Your task to perform on an android device: toggle javascript in the chrome app Image 0: 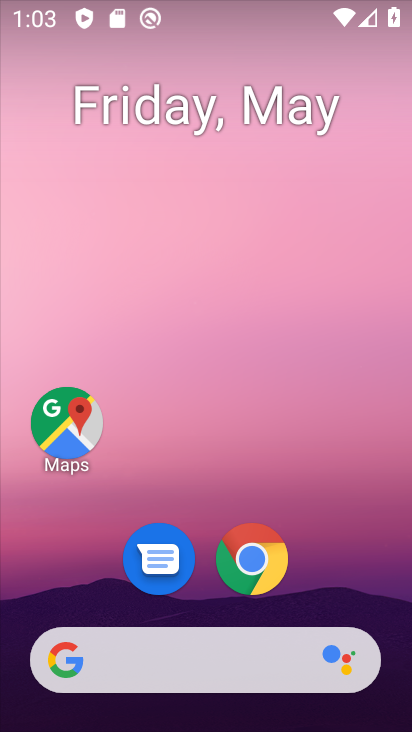
Step 0: drag from (348, 593) to (340, 194)
Your task to perform on an android device: toggle javascript in the chrome app Image 1: 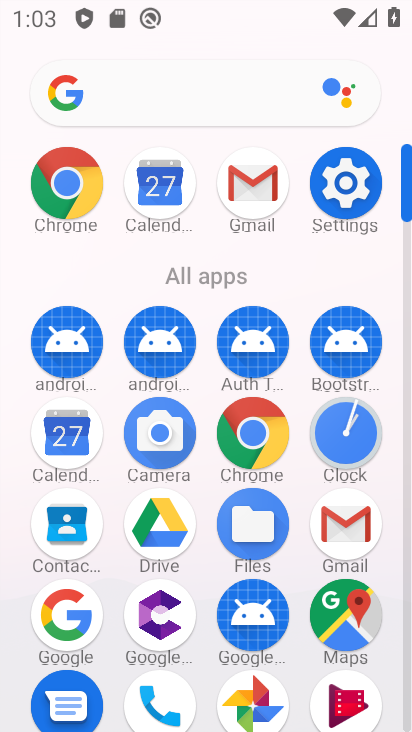
Step 1: click (243, 434)
Your task to perform on an android device: toggle javascript in the chrome app Image 2: 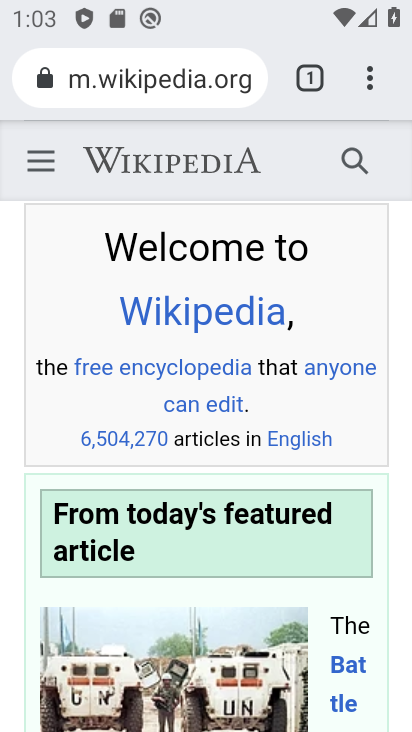
Step 2: drag from (370, 83) to (121, 615)
Your task to perform on an android device: toggle javascript in the chrome app Image 3: 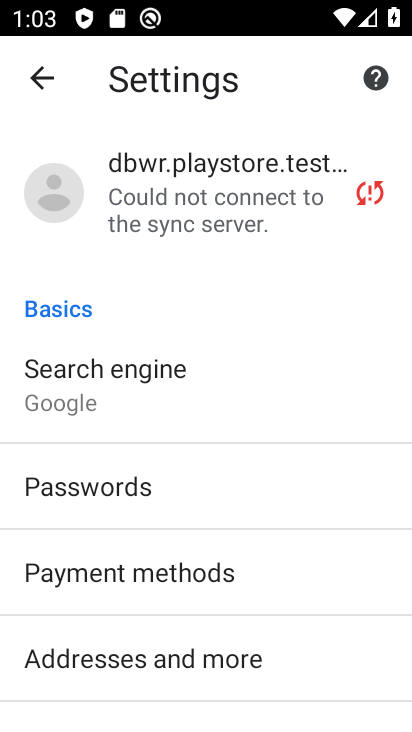
Step 3: drag from (303, 706) to (290, 340)
Your task to perform on an android device: toggle javascript in the chrome app Image 4: 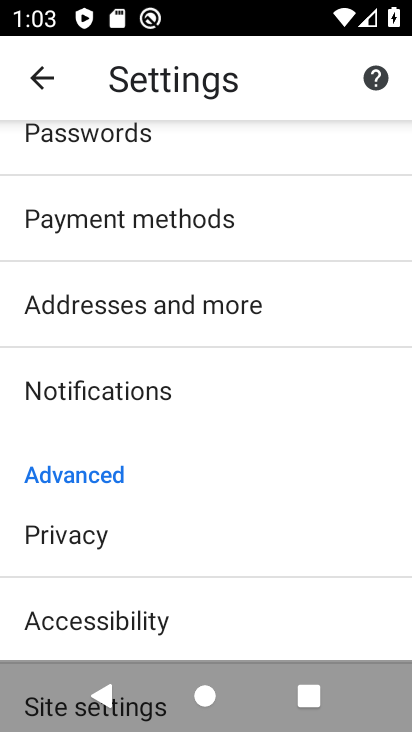
Step 4: drag from (257, 557) to (268, 273)
Your task to perform on an android device: toggle javascript in the chrome app Image 5: 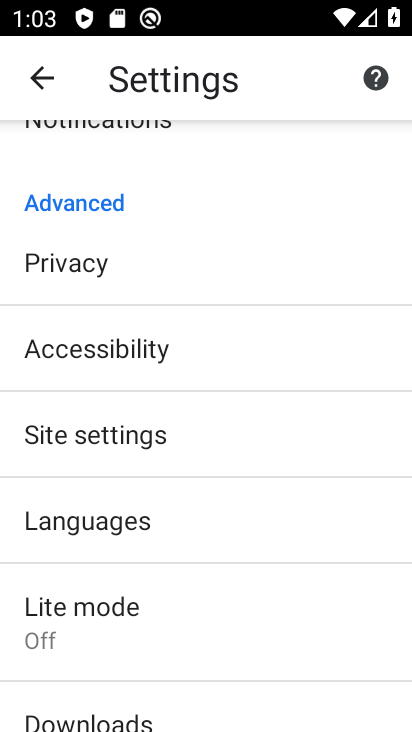
Step 5: drag from (227, 619) to (260, 310)
Your task to perform on an android device: toggle javascript in the chrome app Image 6: 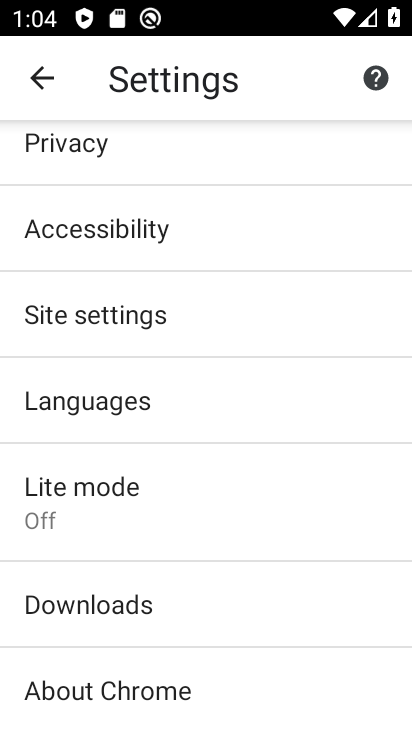
Step 6: click (174, 330)
Your task to perform on an android device: toggle javascript in the chrome app Image 7: 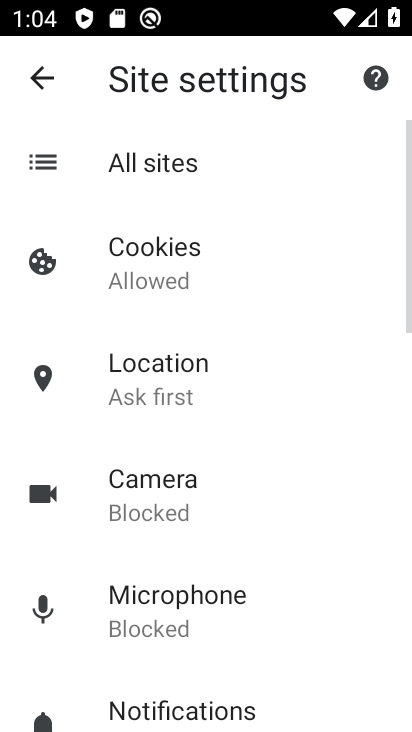
Step 7: drag from (216, 667) to (223, 359)
Your task to perform on an android device: toggle javascript in the chrome app Image 8: 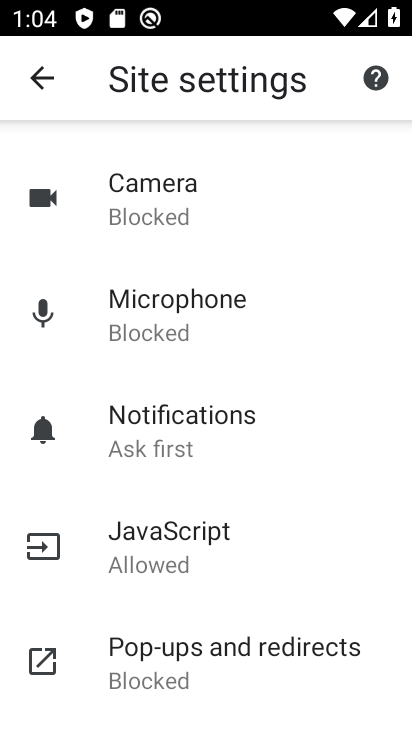
Step 8: click (239, 547)
Your task to perform on an android device: toggle javascript in the chrome app Image 9: 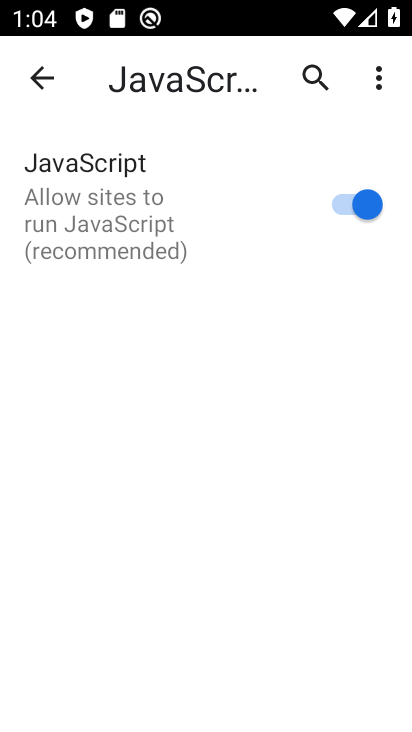
Step 9: click (358, 214)
Your task to perform on an android device: toggle javascript in the chrome app Image 10: 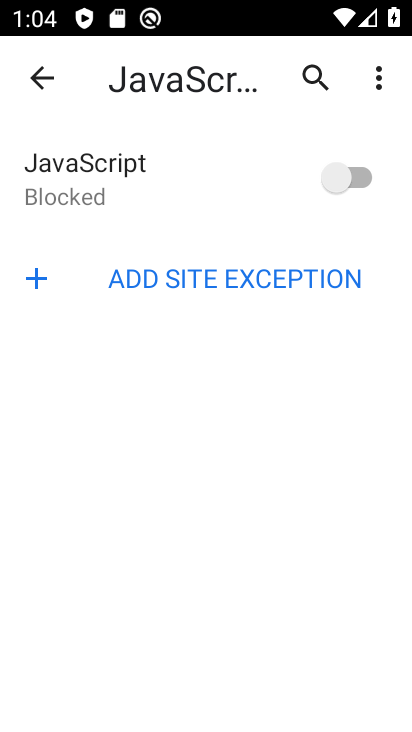
Step 10: task complete